Your task to perform on an android device: Clear all items from cart on walmart. Image 0: 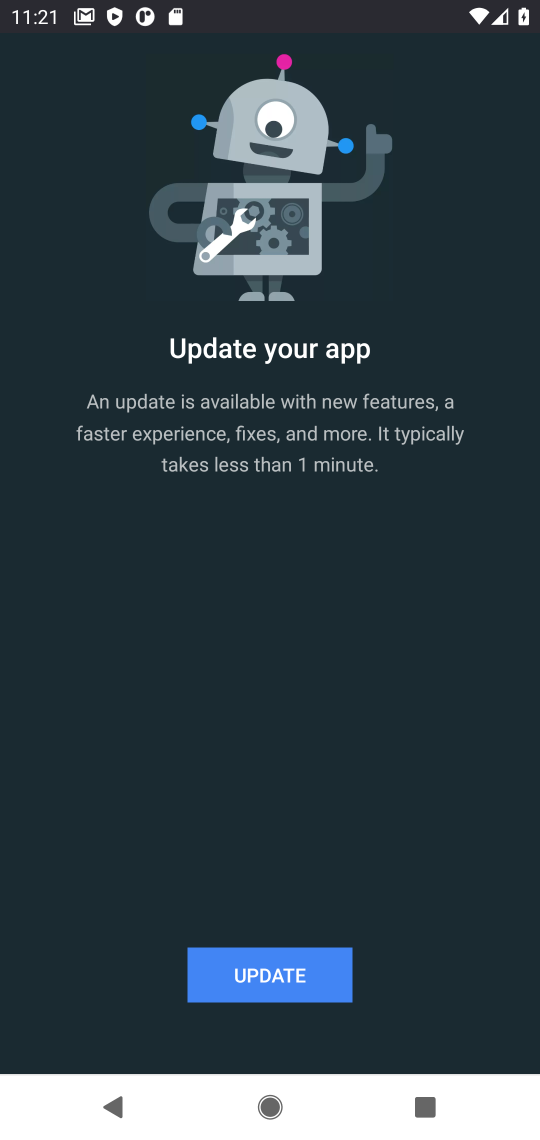
Step 0: press home button
Your task to perform on an android device: Clear all items from cart on walmart. Image 1: 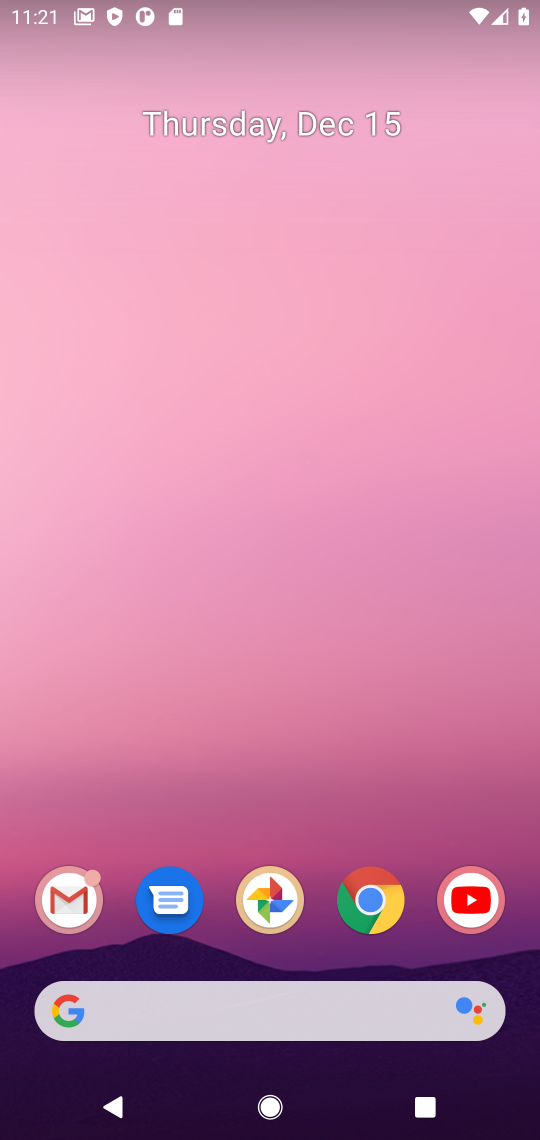
Step 1: click (375, 899)
Your task to perform on an android device: Clear all items from cart on walmart. Image 2: 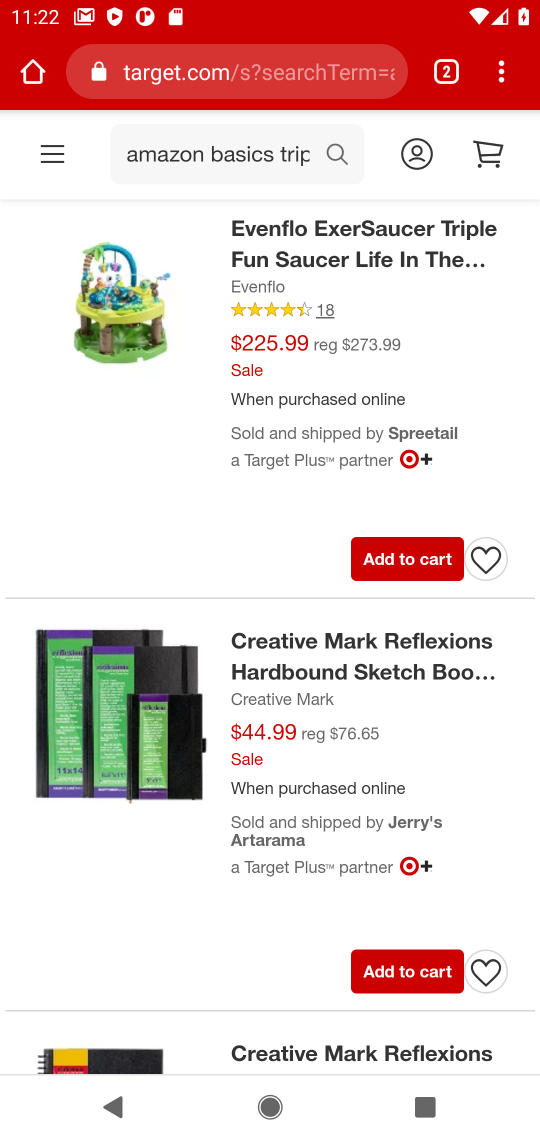
Step 2: click (325, 73)
Your task to perform on an android device: Clear all items from cart on walmart. Image 3: 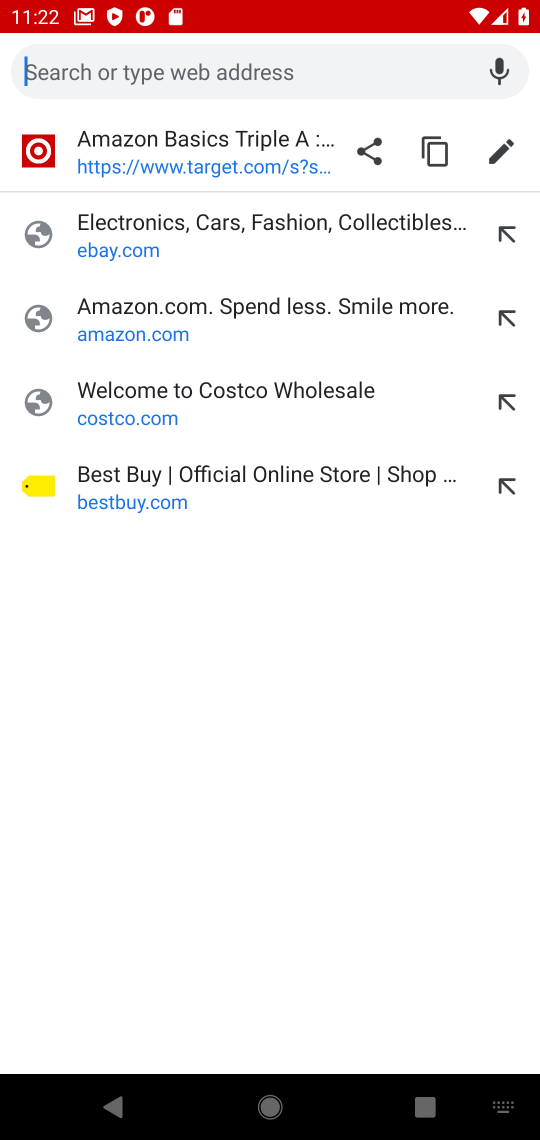
Step 3: press enter
Your task to perform on an android device: Clear all items from cart on walmart. Image 4: 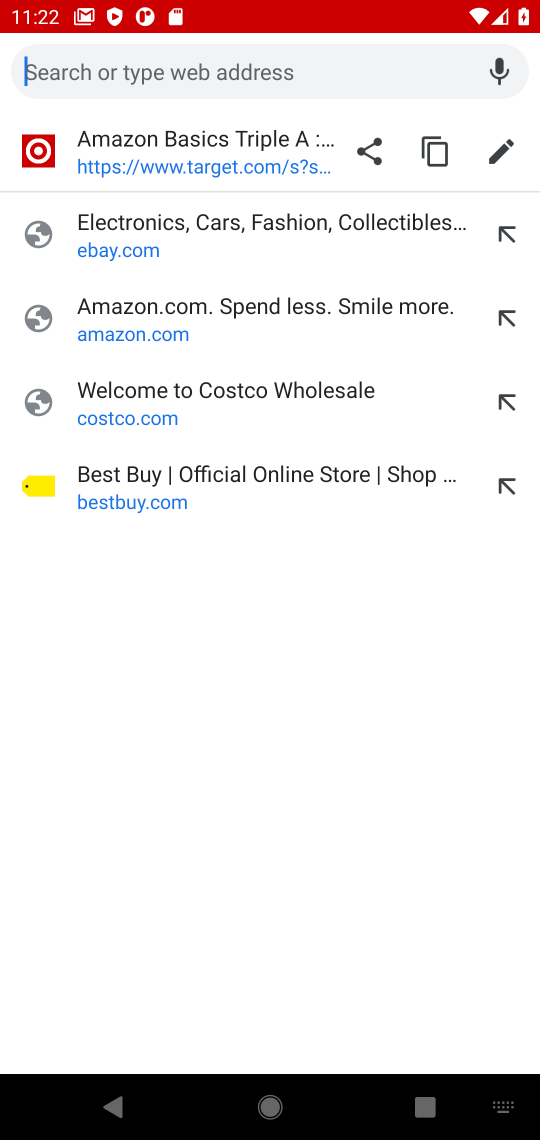
Step 4: type "walmart"
Your task to perform on an android device: Clear all items from cart on walmart. Image 5: 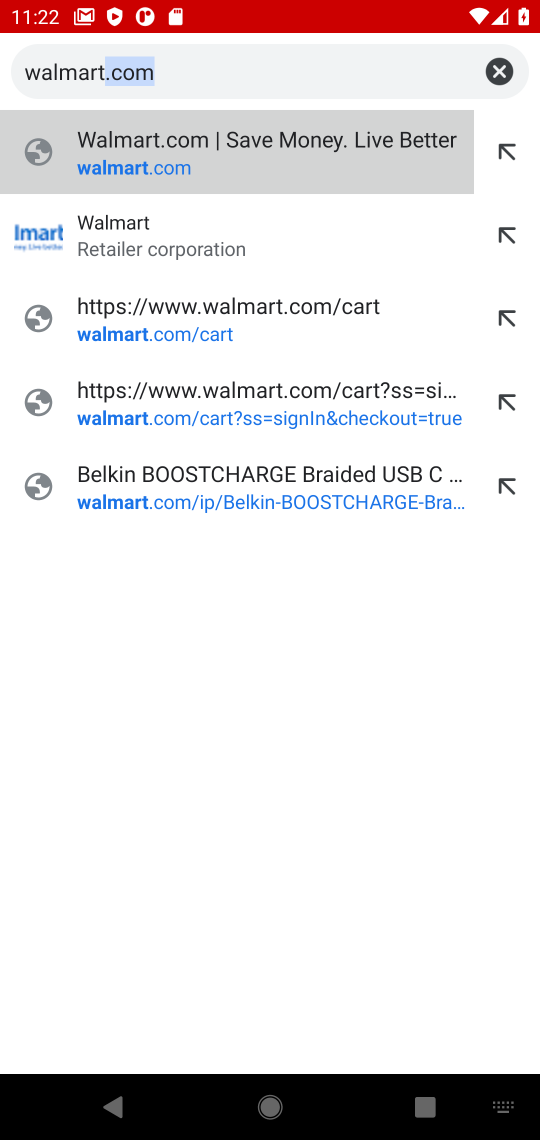
Step 5: click (292, 67)
Your task to perform on an android device: Clear all items from cart on walmart. Image 6: 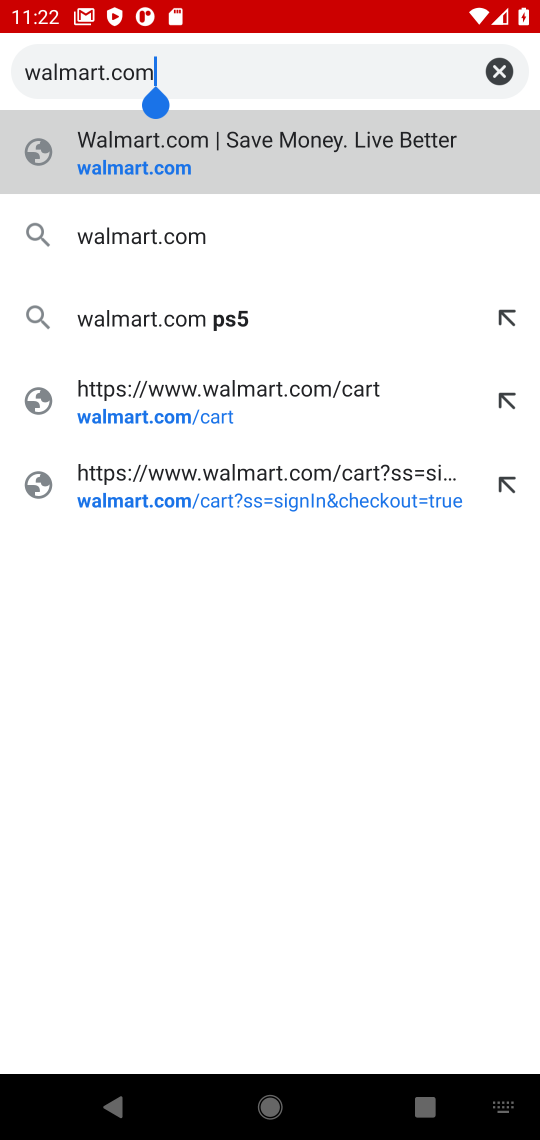
Step 6: click (172, 239)
Your task to perform on an android device: Clear all items from cart on walmart. Image 7: 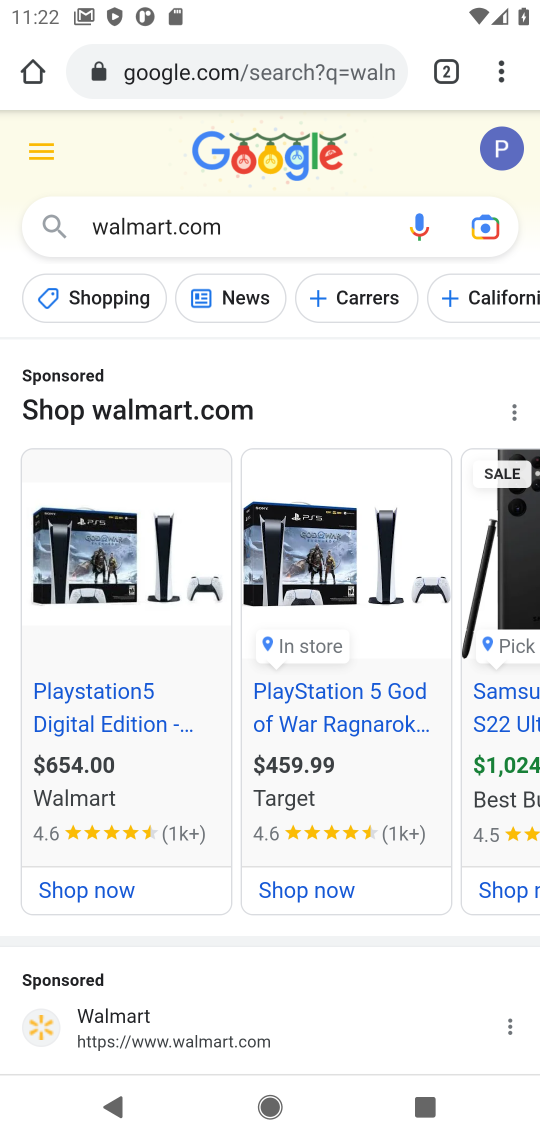
Step 7: click (202, 1032)
Your task to perform on an android device: Clear all items from cart on walmart. Image 8: 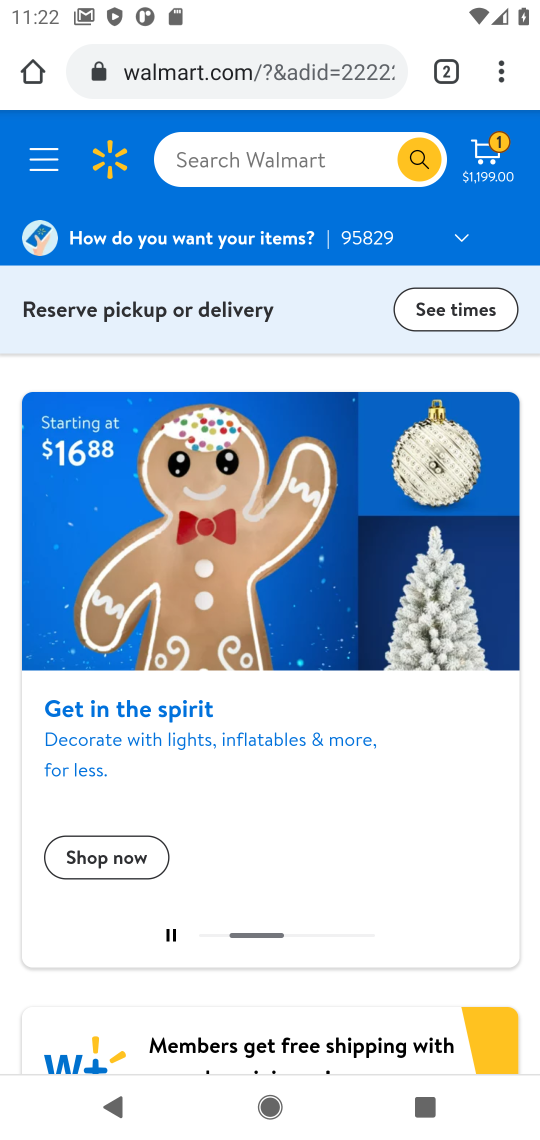
Step 8: click (495, 158)
Your task to perform on an android device: Clear all items from cart on walmart. Image 9: 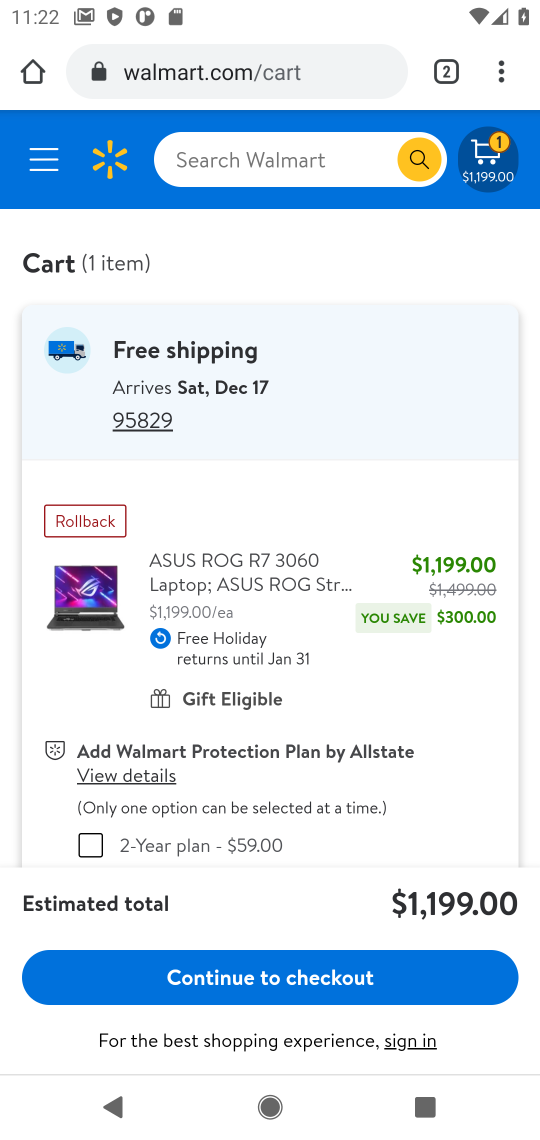
Step 9: drag from (410, 766) to (481, 493)
Your task to perform on an android device: Clear all items from cart on walmart. Image 10: 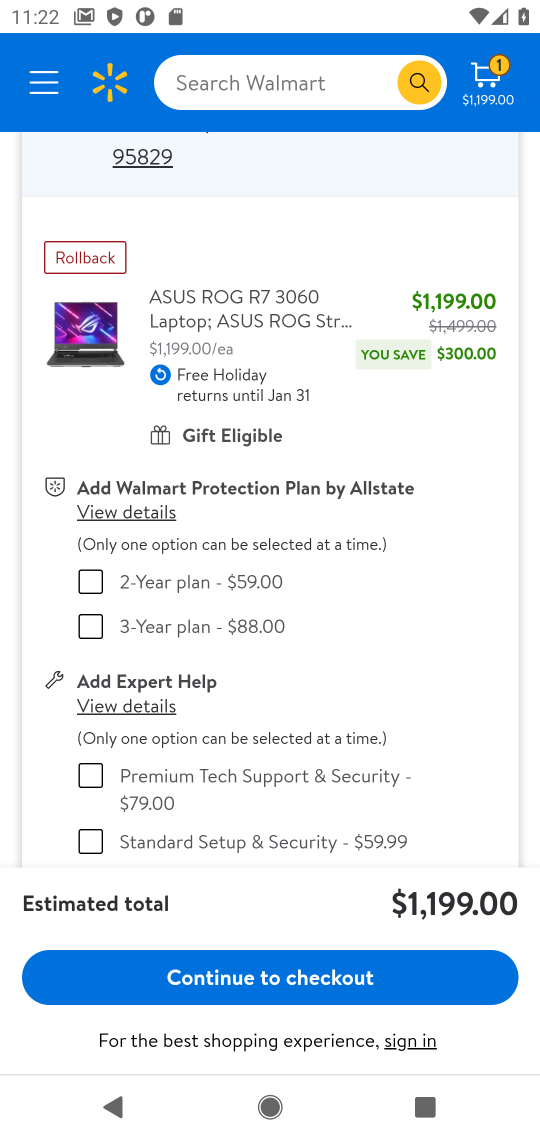
Step 10: drag from (335, 697) to (324, 354)
Your task to perform on an android device: Clear all items from cart on walmart. Image 11: 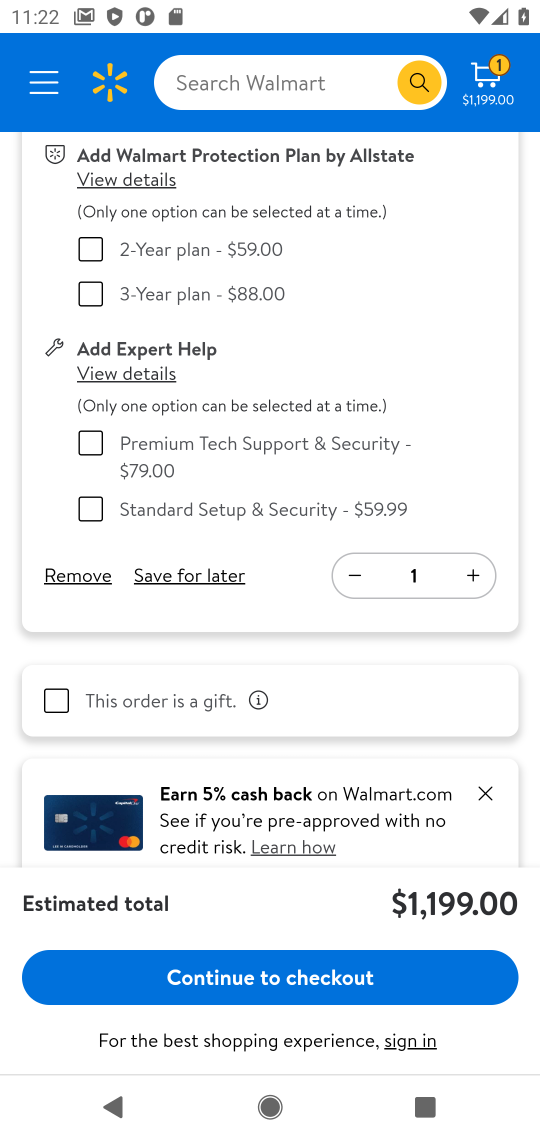
Step 11: click (73, 581)
Your task to perform on an android device: Clear all items from cart on walmart. Image 12: 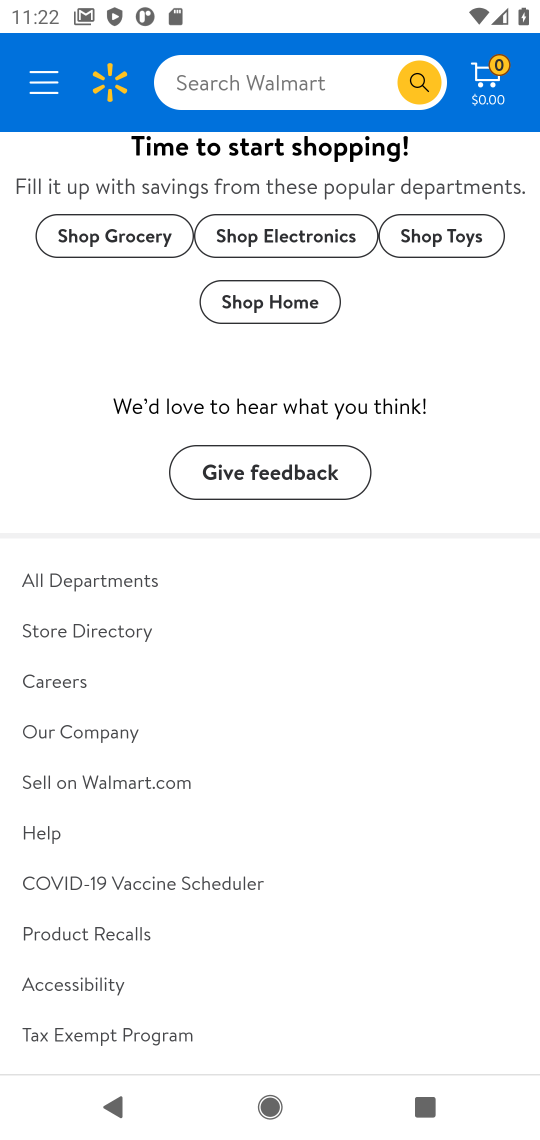
Step 12: task complete